Your task to perform on an android device: see creations saved in the google photos Image 0: 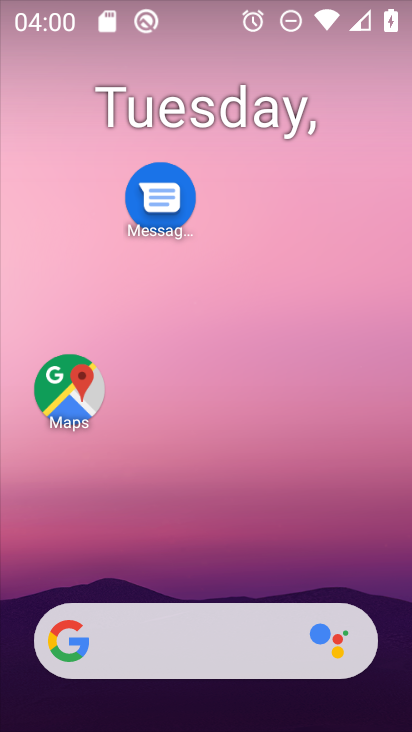
Step 0: drag from (207, 567) to (265, 199)
Your task to perform on an android device: see creations saved in the google photos Image 1: 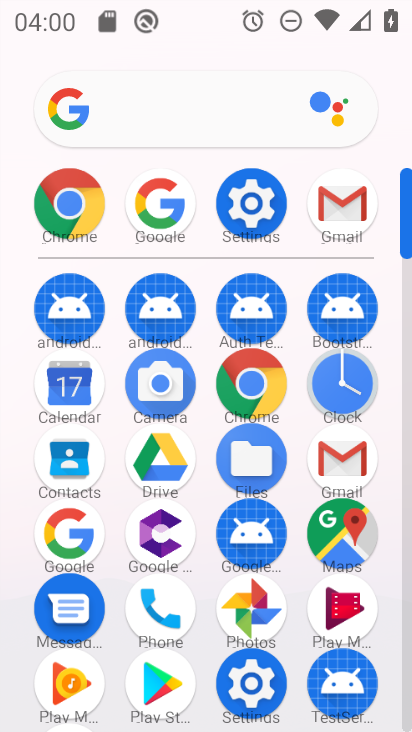
Step 1: click (257, 600)
Your task to perform on an android device: see creations saved in the google photos Image 2: 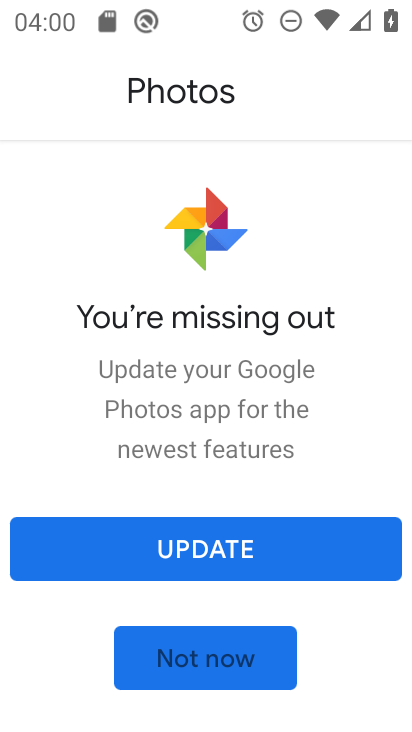
Step 2: click (205, 644)
Your task to perform on an android device: see creations saved in the google photos Image 3: 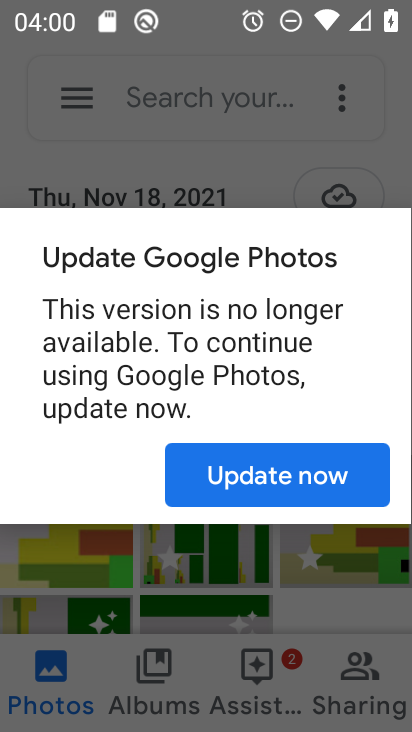
Step 3: click (208, 453)
Your task to perform on an android device: see creations saved in the google photos Image 4: 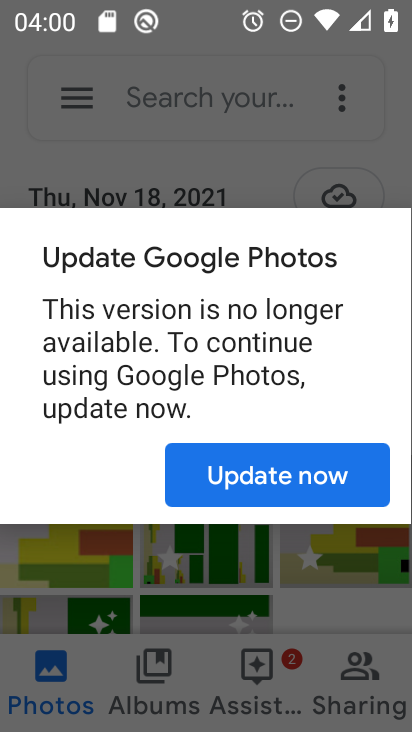
Step 4: click (220, 474)
Your task to perform on an android device: see creations saved in the google photos Image 5: 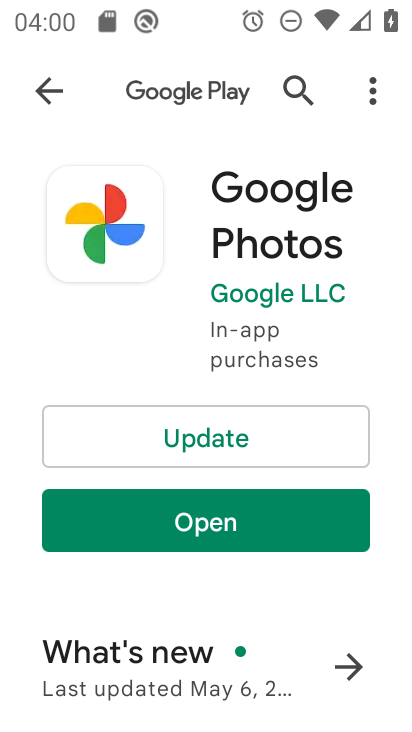
Step 5: click (289, 523)
Your task to perform on an android device: see creations saved in the google photos Image 6: 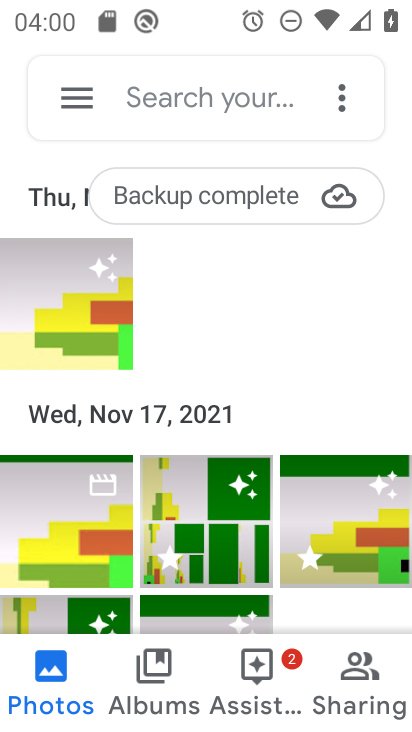
Step 6: click (179, 98)
Your task to perform on an android device: see creations saved in the google photos Image 7: 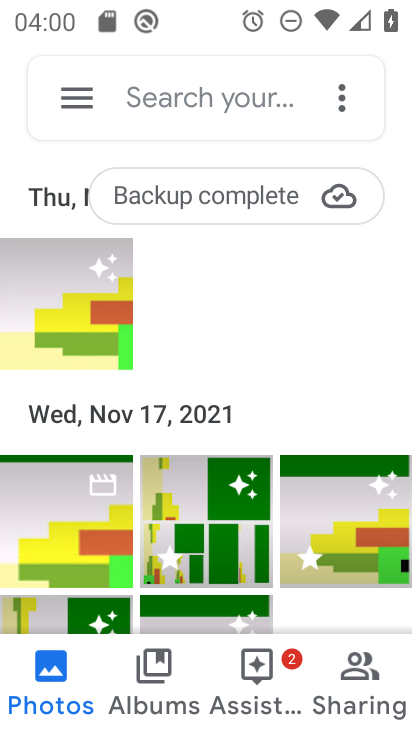
Step 7: click (179, 98)
Your task to perform on an android device: see creations saved in the google photos Image 8: 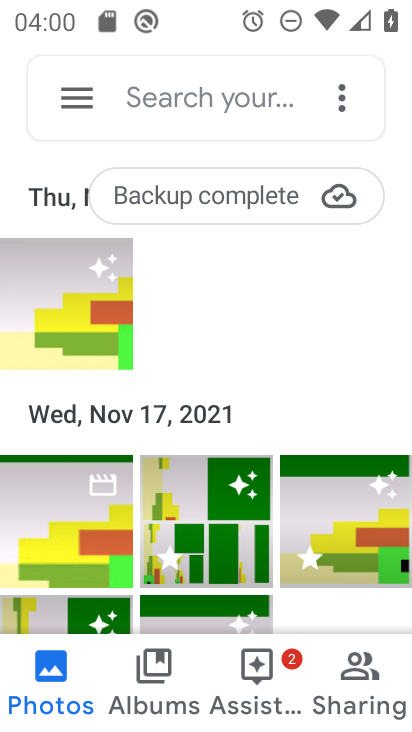
Step 8: click (185, 101)
Your task to perform on an android device: see creations saved in the google photos Image 9: 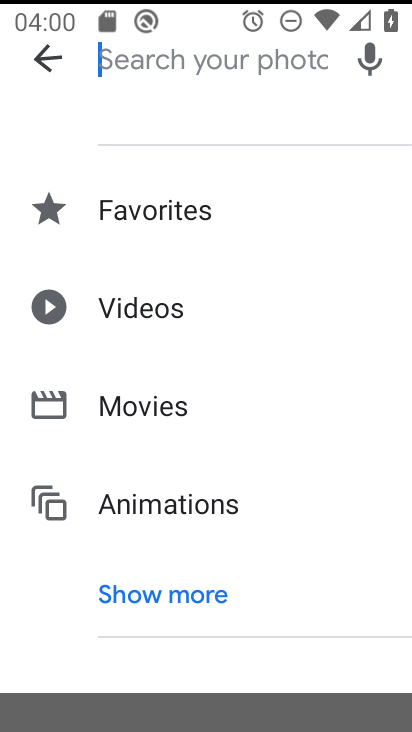
Step 9: click (248, 107)
Your task to perform on an android device: see creations saved in the google photos Image 10: 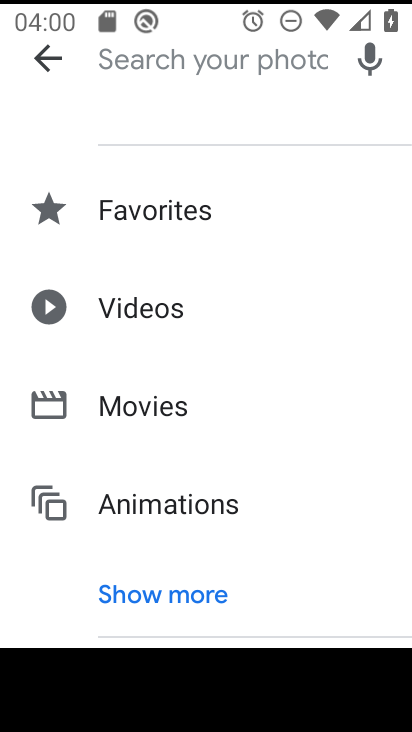
Step 10: click (148, 571)
Your task to perform on an android device: see creations saved in the google photos Image 11: 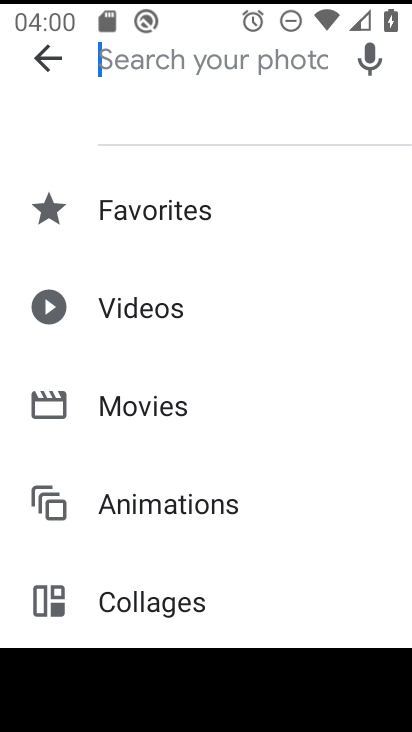
Step 11: drag from (149, 566) to (200, 281)
Your task to perform on an android device: see creations saved in the google photos Image 12: 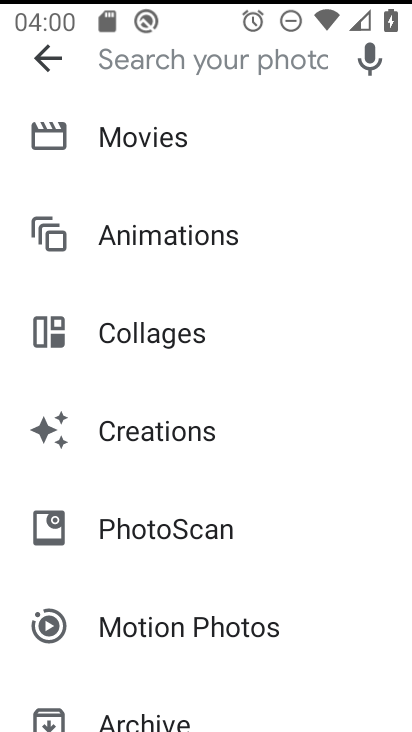
Step 12: click (143, 431)
Your task to perform on an android device: see creations saved in the google photos Image 13: 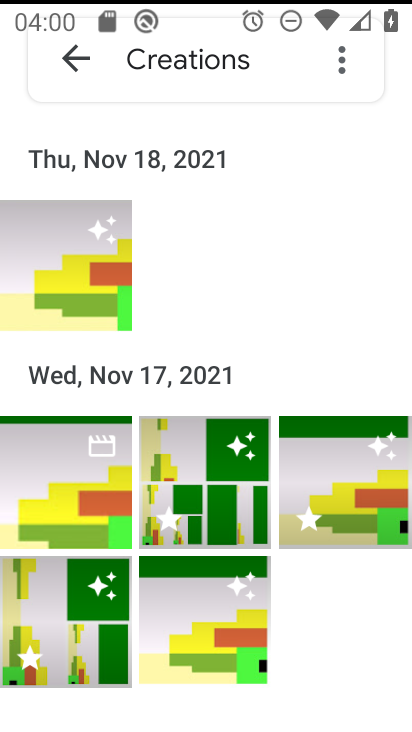
Step 13: task complete